Your task to perform on an android device: Open Google Image 0: 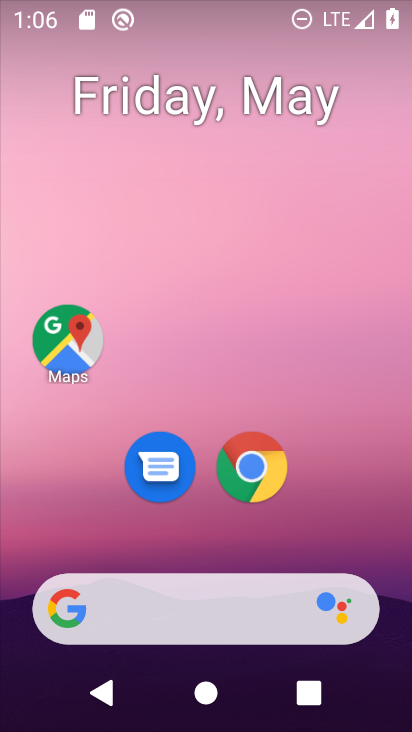
Step 0: drag from (224, 643) to (250, 75)
Your task to perform on an android device: Open Google Image 1: 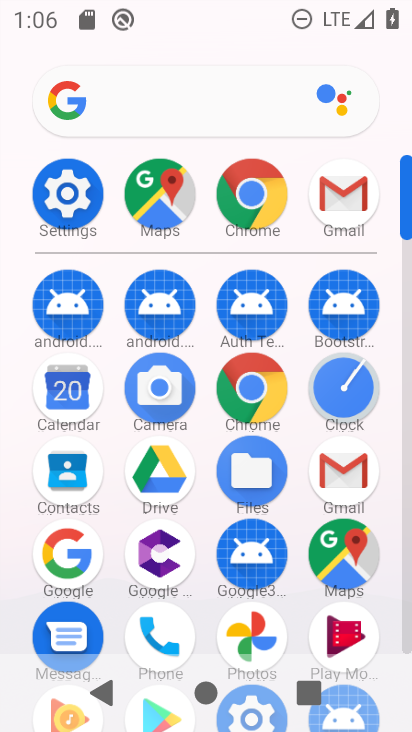
Step 1: click (259, 386)
Your task to perform on an android device: Open Google Image 2: 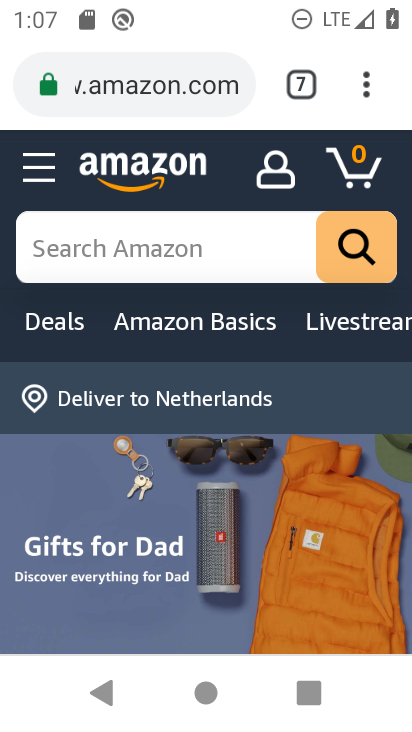
Step 2: task complete